Your task to perform on an android device: Show me popular videos on Youtube Image 0: 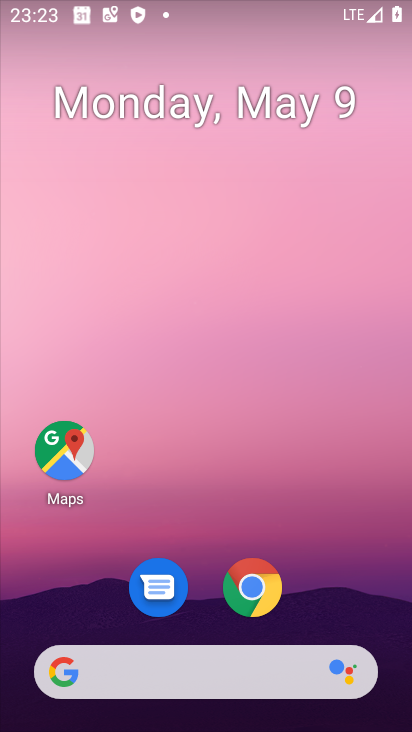
Step 0: drag from (202, 627) to (254, 90)
Your task to perform on an android device: Show me popular videos on Youtube Image 1: 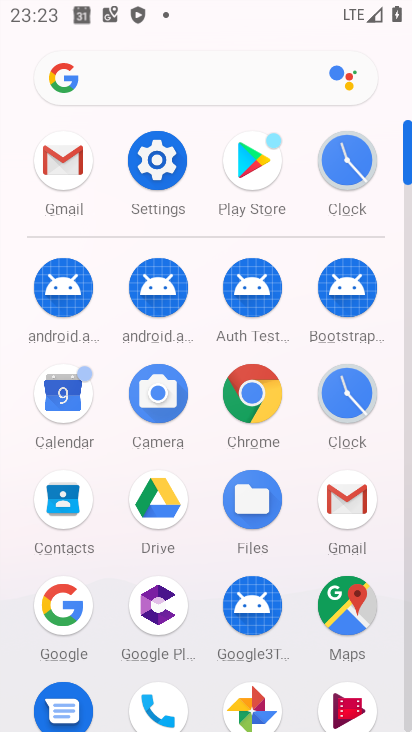
Step 1: drag from (204, 676) to (241, 132)
Your task to perform on an android device: Show me popular videos on Youtube Image 2: 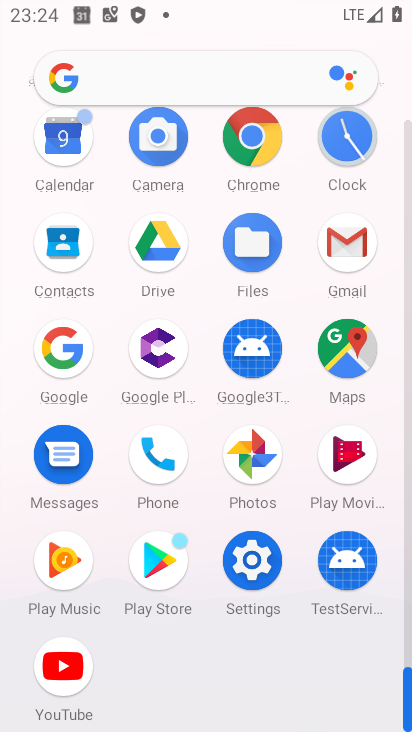
Step 2: click (54, 676)
Your task to perform on an android device: Show me popular videos on Youtube Image 3: 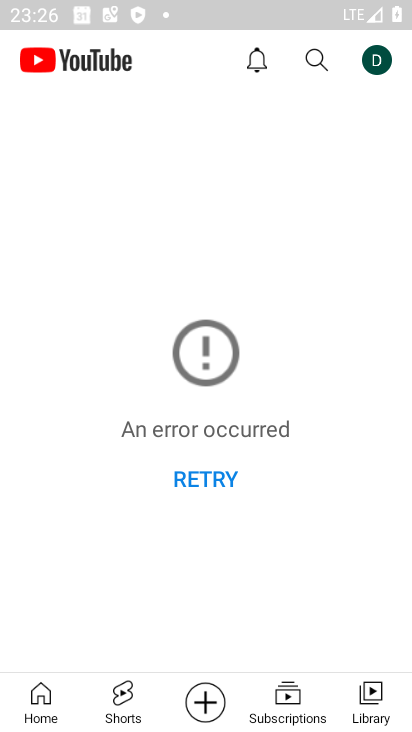
Step 3: task complete